Your task to perform on an android device: manage bookmarks in the chrome app Image 0: 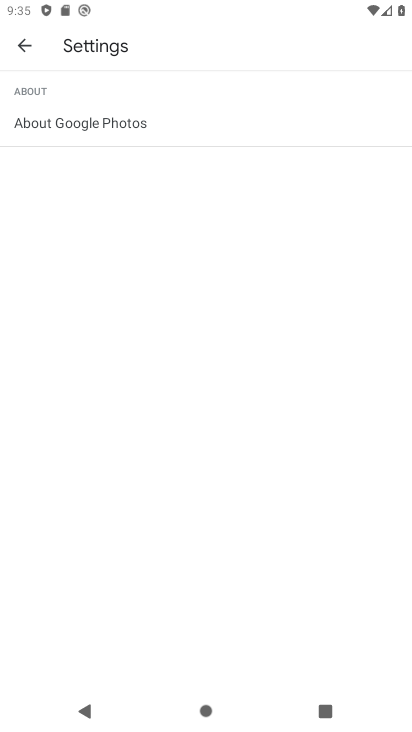
Step 0: press home button
Your task to perform on an android device: manage bookmarks in the chrome app Image 1: 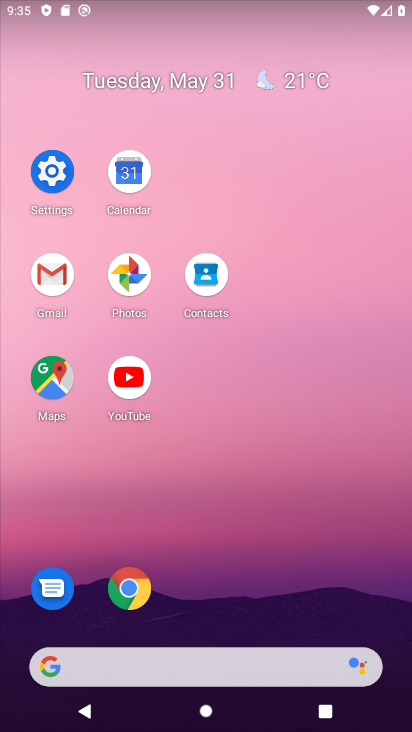
Step 1: click (127, 598)
Your task to perform on an android device: manage bookmarks in the chrome app Image 2: 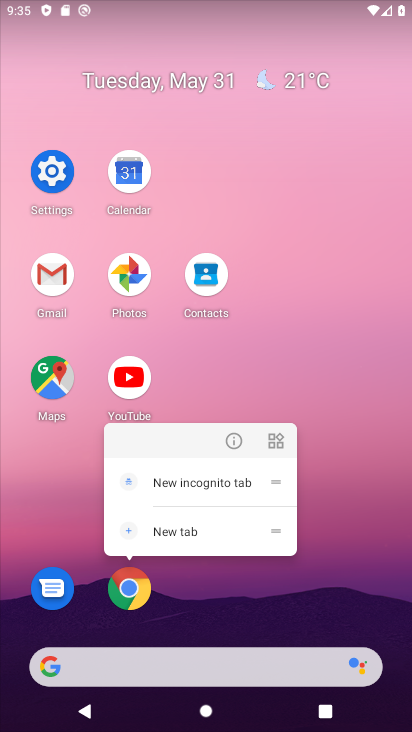
Step 2: click (127, 598)
Your task to perform on an android device: manage bookmarks in the chrome app Image 3: 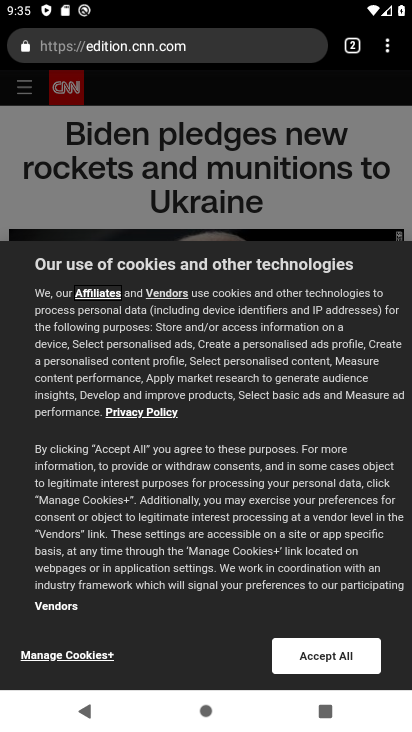
Step 3: click (383, 45)
Your task to perform on an android device: manage bookmarks in the chrome app Image 4: 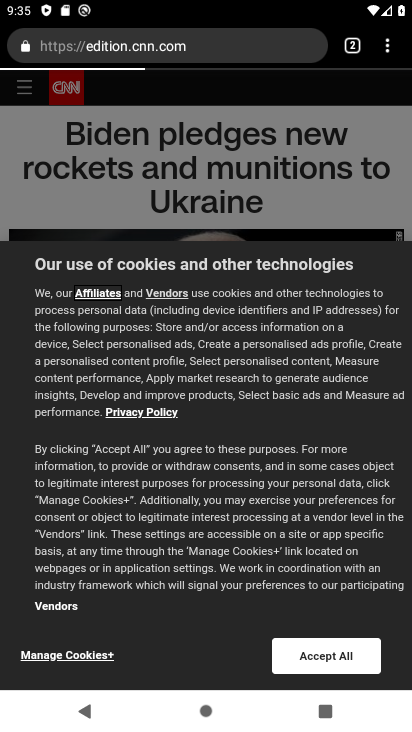
Step 4: click (383, 47)
Your task to perform on an android device: manage bookmarks in the chrome app Image 5: 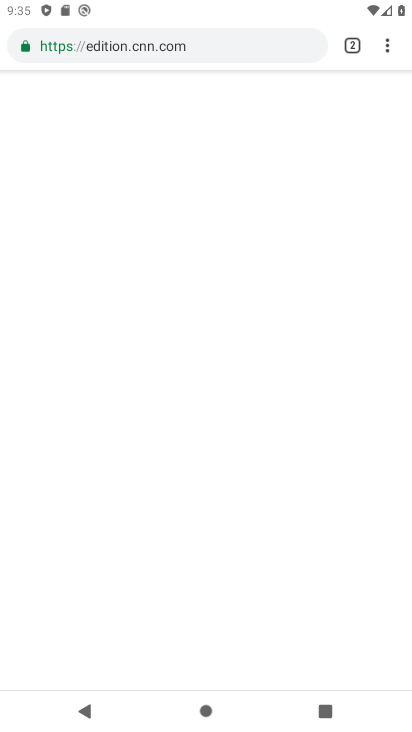
Step 5: click (403, 35)
Your task to perform on an android device: manage bookmarks in the chrome app Image 6: 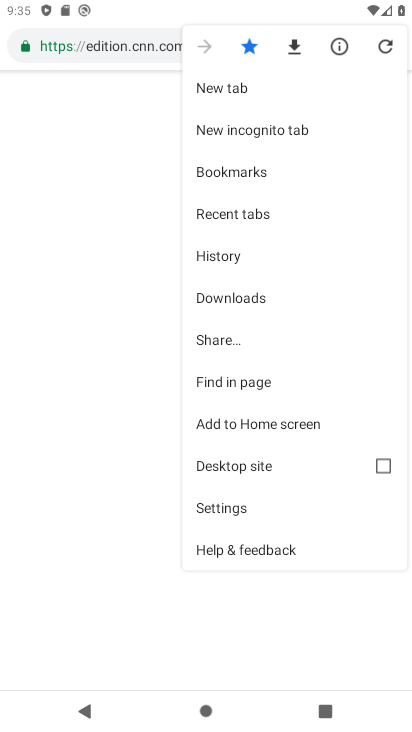
Step 6: click (276, 170)
Your task to perform on an android device: manage bookmarks in the chrome app Image 7: 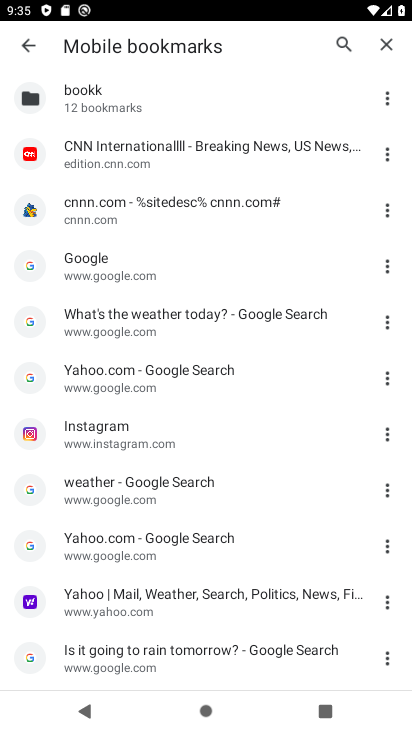
Step 7: click (382, 93)
Your task to perform on an android device: manage bookmarks in the chrome app Image 8: 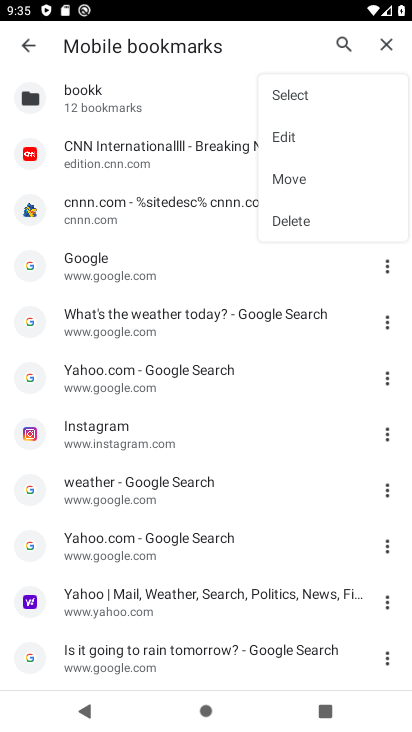
Step 8: click (285, 219)
Your task to perform on an android device: manage bookmarks in the chrome app Image 9: 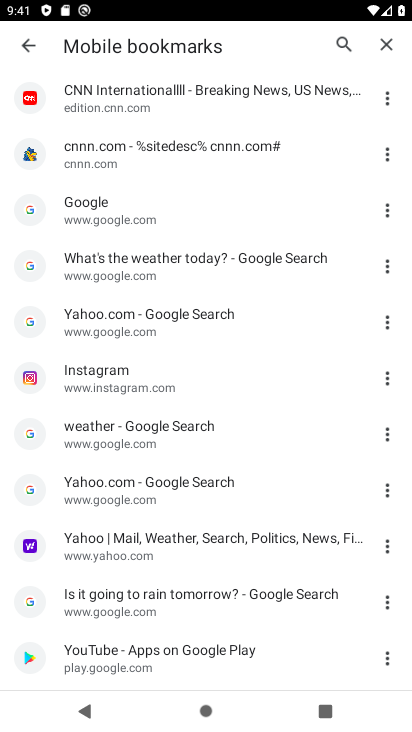
Step 9: task complete